Your task to perform on an android device: Search for sushi restaurants on Maps Image 0: 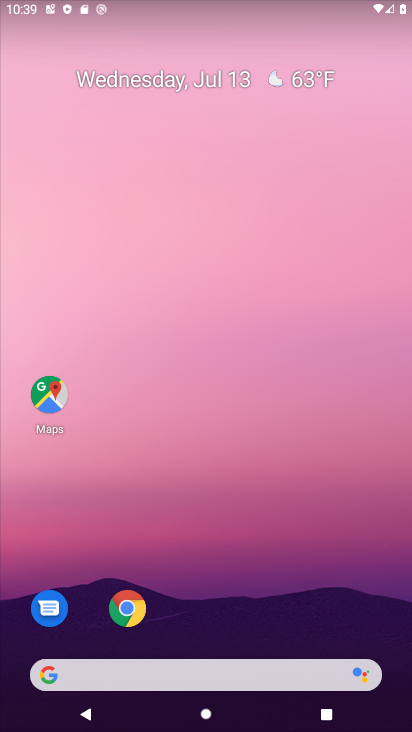
Step 0: click (42, 382)
Your task to perform on an android device: Search for sushi restaurants on Maps Image 1: 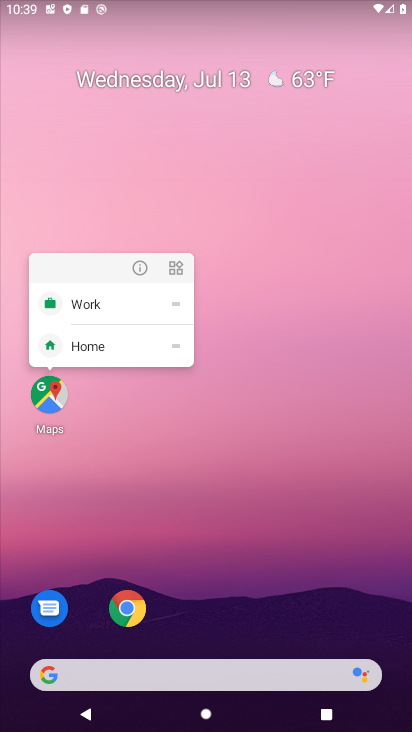
Step 1: click (52, 392)
Your task to perform on an android device: Search for sushi restaurants on Maps Image 2: 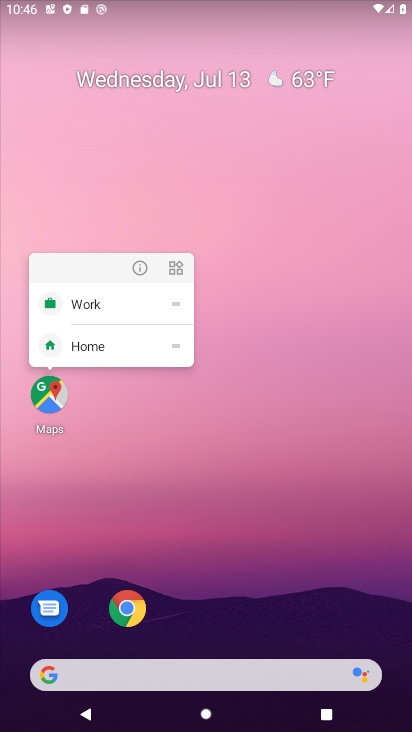
Step 2: press home button
Your task to perform on an android device: Search for sushi restaurants on Maps Image 3: 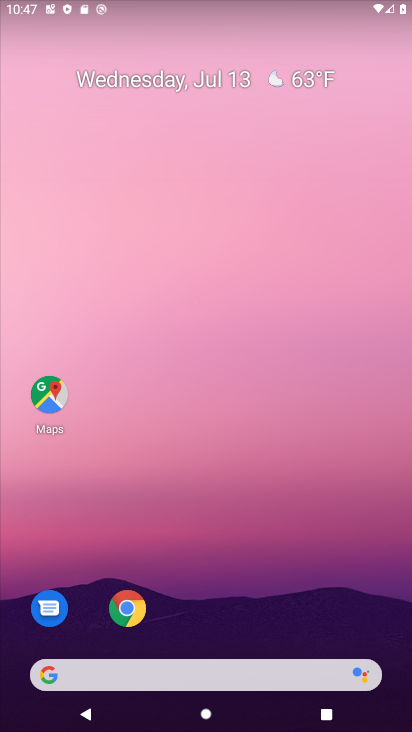
Step 3: click (50, 386)
Your task to perform on an android device: Search for sushi restaurants on Maps Image 4: 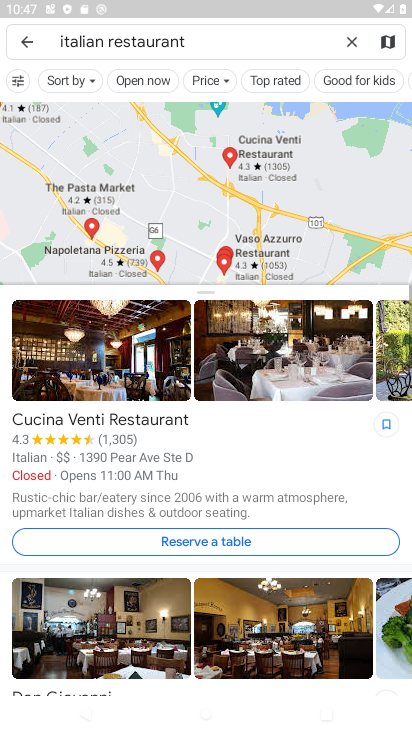
Step 4: click (30, 42)
Your task to perform on an android device: Search for sushi restaurants on Maps Image 5: 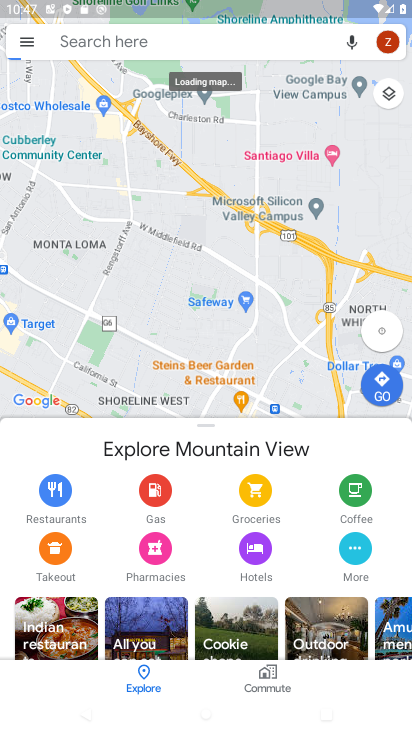
Step 5: type "sushi restaurants"
Your task to perform on an android device: Search for sushi restaurants on Maps Image 6: 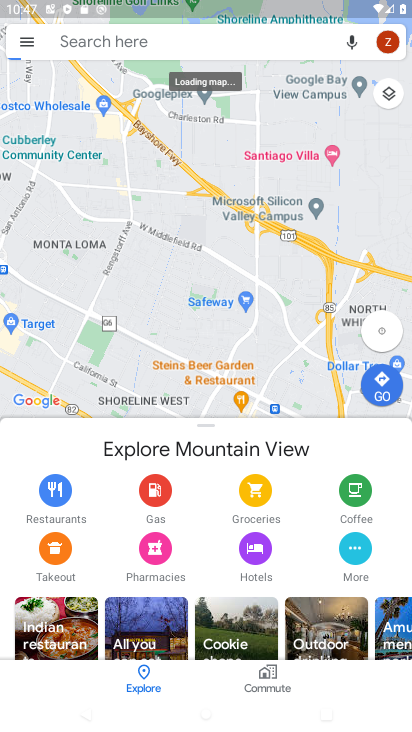
Step 6: click (129, 43)
Your task to perform on an android device: Search for sushi restaurants on Maps Image 7: 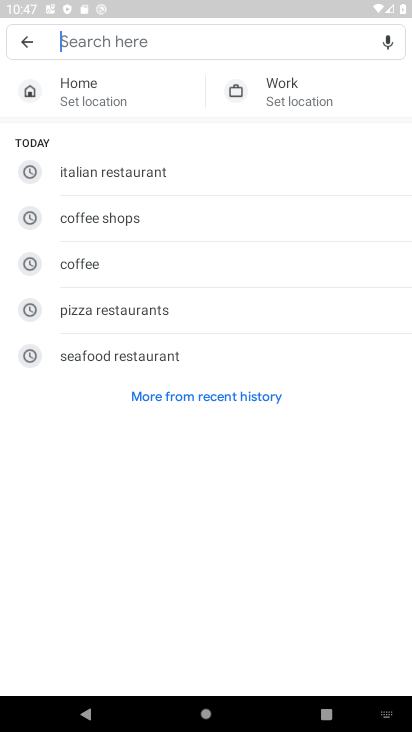
Step 7: click (111, 31)
Your task to perform on an android device: Search for sushi restaurants on Maps Image 8: 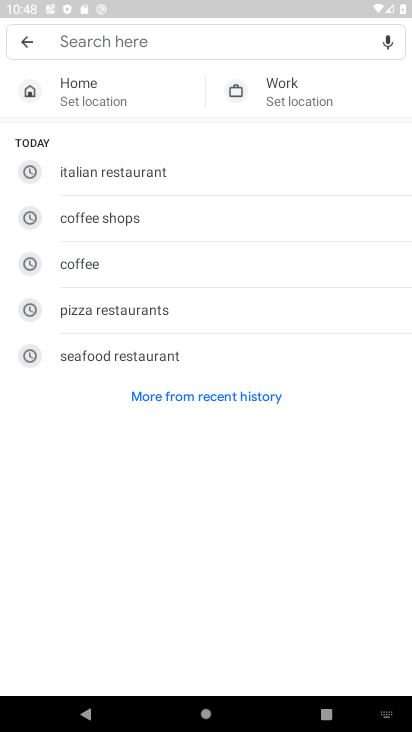
Step 8: type "sushi restaurants"
Your task to perform on an android device: Search for sushi restaurants on Maps Image 9: 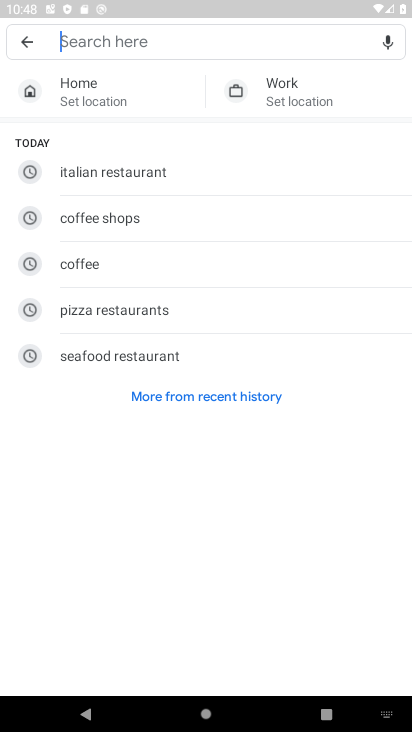
Step 9: click (113, 36)
Your task to perform on an android device: Search for sushi restaurants on Maps Image 10: 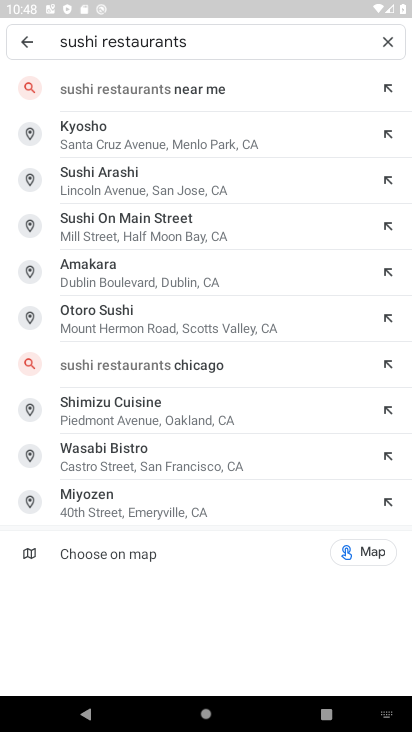
Step 10: press enter
Your task to perform on an android device: Search for sushi restaurants on Maps Image 11: 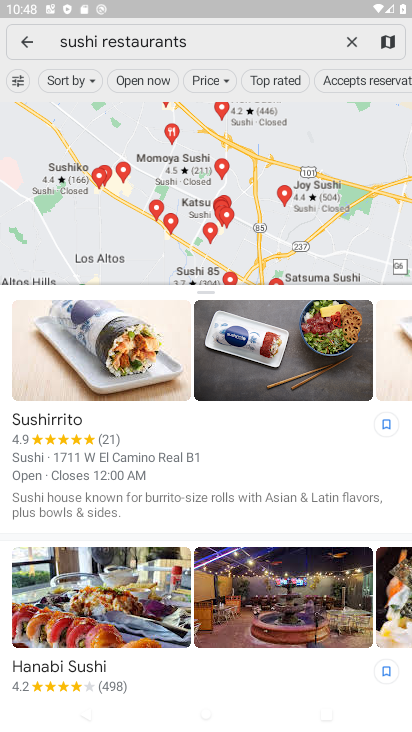
Step 11: task complete